Your task to perform on an android device: turn on improve location accuracy Image 0: 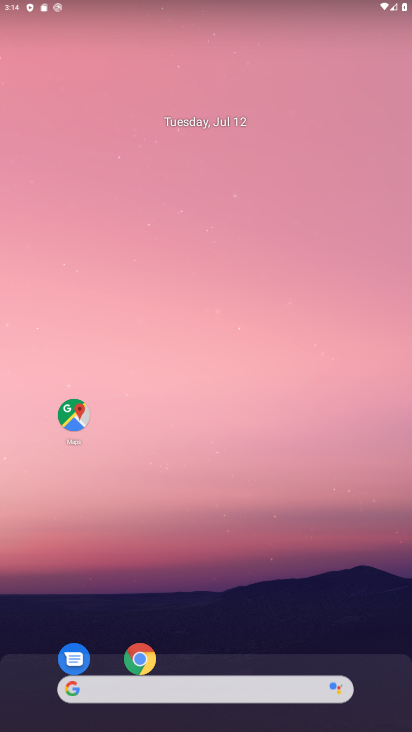
Step 0: drag from (302, 653) to (273, 155)
Your task to perform on an android device: turn on improve location accuracy Image 1: 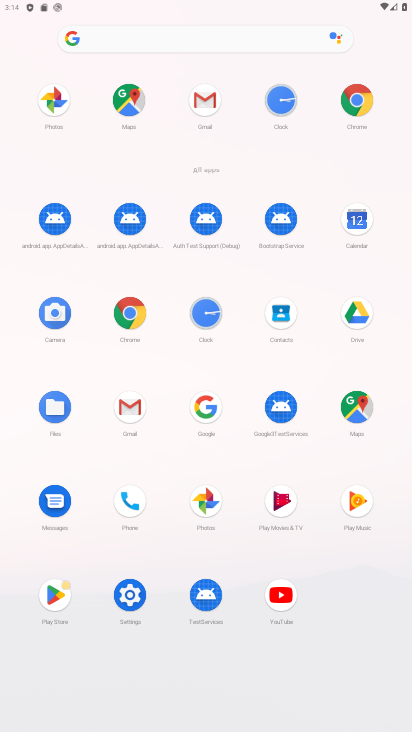
Step 1: click (128, 103)
Your task to perform on an android device: turn on improve location accuracy Image 2: 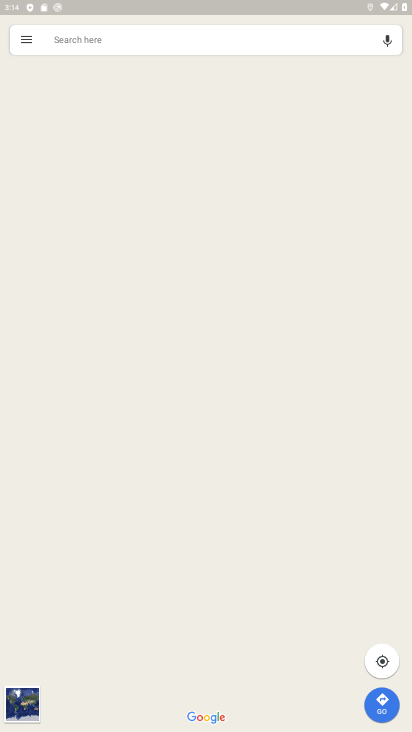
Step 2: press home button
Your task to perform on an android device: turn on improve location accuracy Image 3: 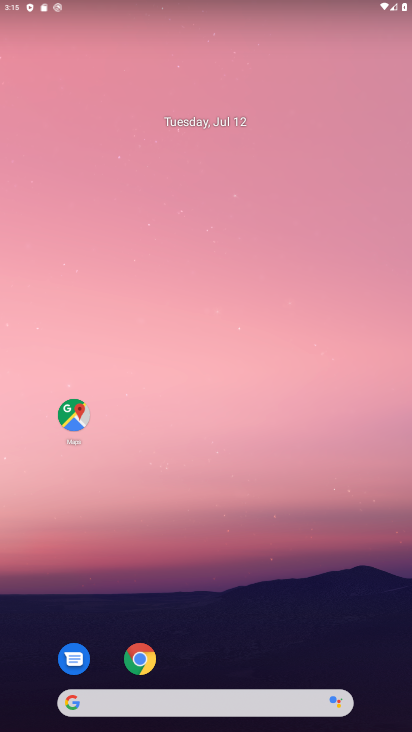
Step 3: drag from (264, 643) to (274, 203)
Your task to perform on an android device: turn on improve location accuracy Image 4: 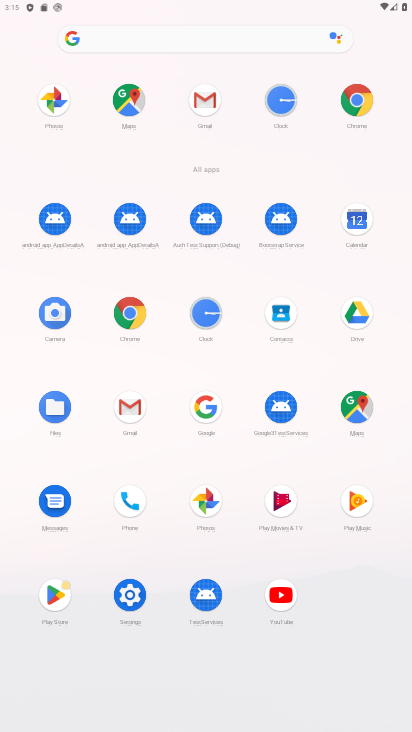
Step 4: click (134, 600)
Your task to perform on an android device: turn on improve location accuracy Image 5: 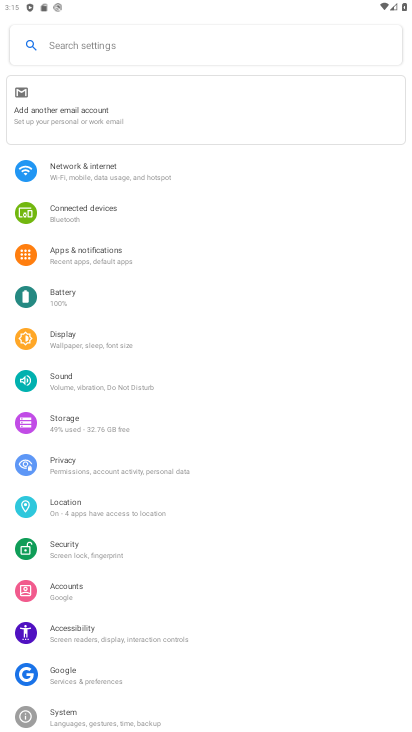
Step 5: click (149, 503)
Your task to perform on an android device: turn on improve location accuracy Image 6: 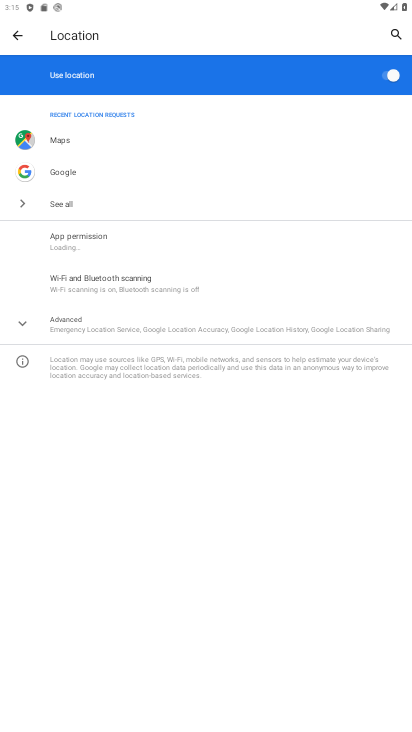
Step 6: click (189, 322)
Your task to perform on an android device: turn on improve location accuracy Image 7: 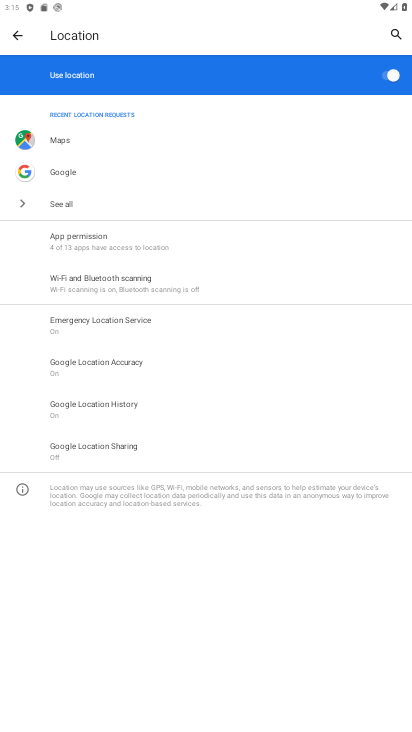
Step 7: click (150, 366)
Your task to perform on an android device: turn on improve location accuracy Image 8: 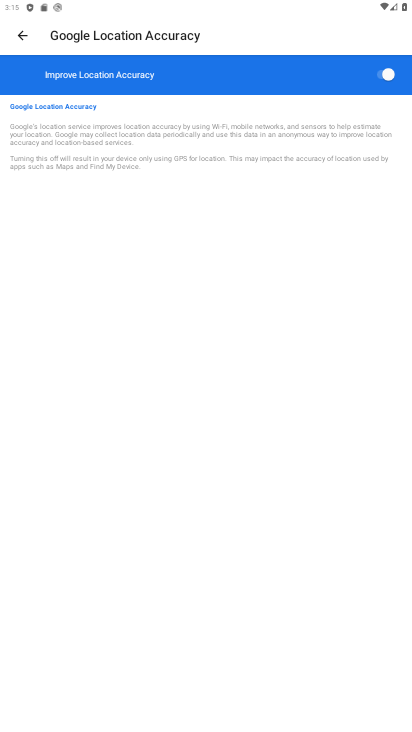
Step 8: task complete